Your task to perform on an android device: turn off priority inbox in the gmail app Image 0: 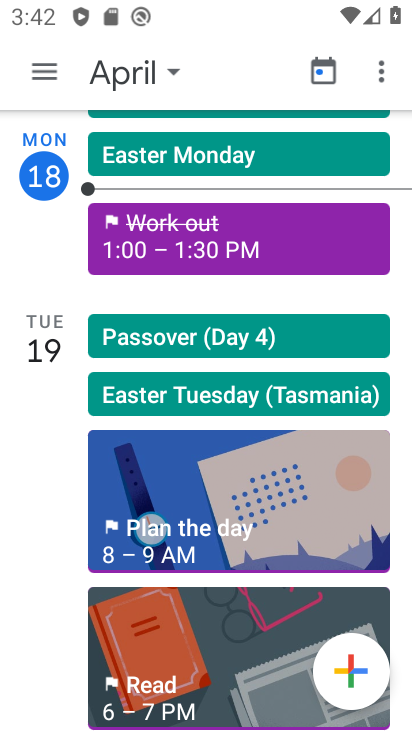
Step 0: press home button
Your task to perform on an android device: turn off priority inbox in the gmail app Image 1: 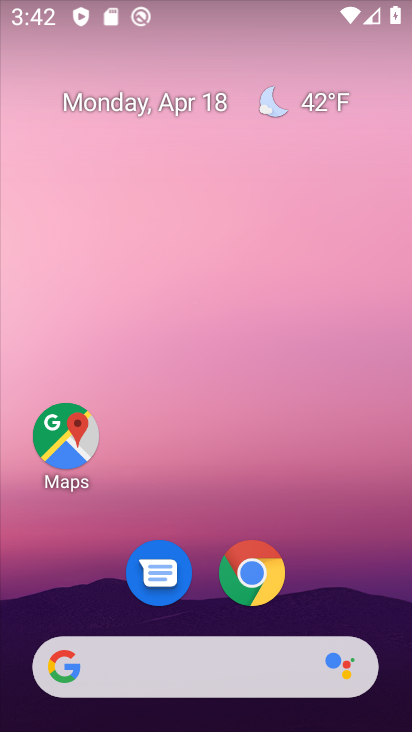
Step 1: drag from (209, 632) to (221, 302)
Your task to perform on an android device: turn off priority inbox in the gmail app Image 2: 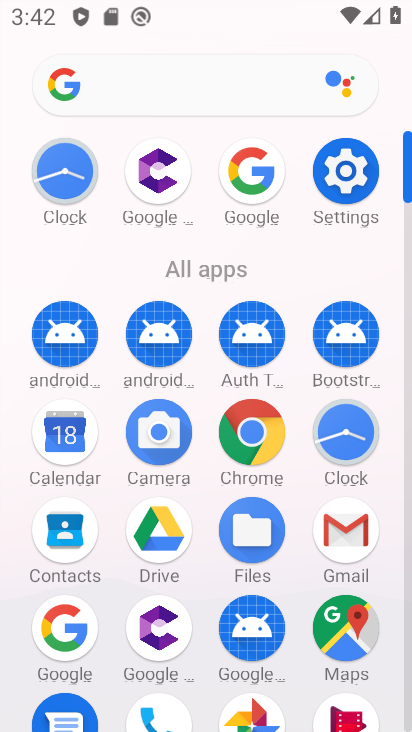
Step 2: click (352, 541)
Your task to perform on an android device: turn off priority inbox in the gmail app Image 3: 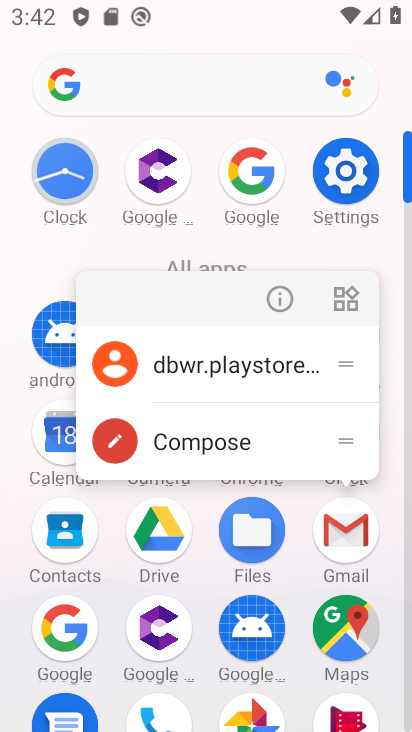
Step 3: click (343, 528)
Your task to perform on an android device: turn off priority inbox in the gmail app Image 4: 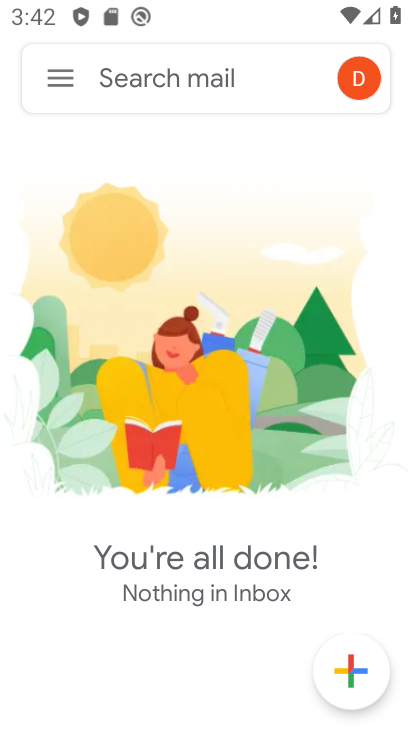
Step 4: click (58, 71)
Your task to perform on an android device: turn off priority inbox in the gmail app Image 5: 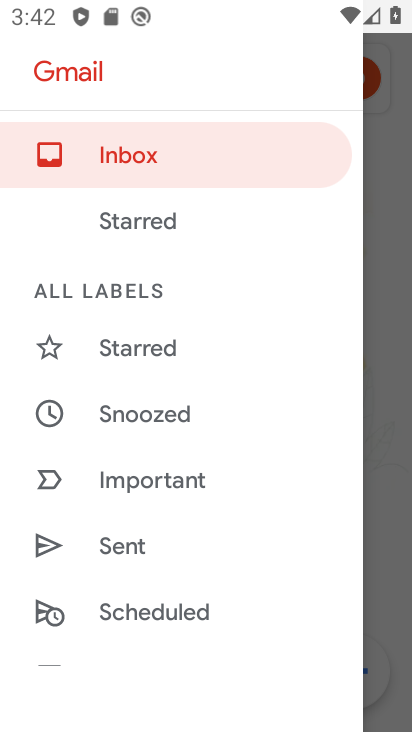
Step 5: drag from (170, 576) to (176, 298)
Your task to perform on an android device: turn off priority inbox in the gmail app Image 6: 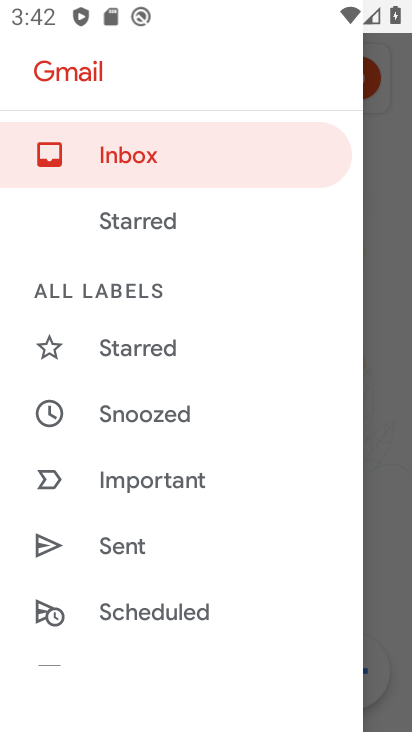
Step 6: drag from (181, 639) to (171, 319)
Your task to perform on an android device: turn off priority inbox in the gmail app Image 7: 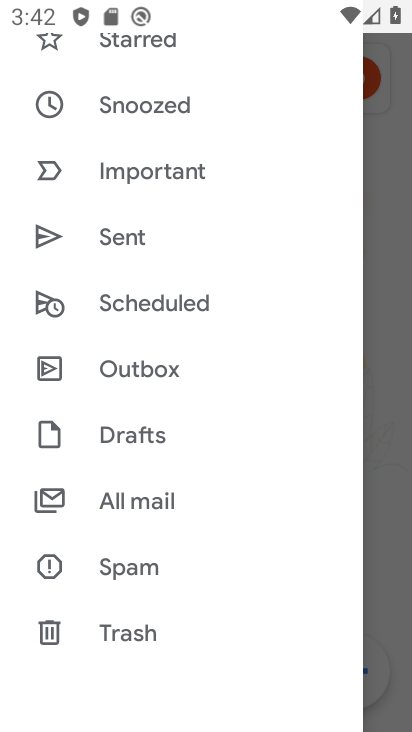
Step 7: drag from (205, 633) to (245, 269)
Your task to perform on an android device: turn off priority inbox in the gmail app Image 8: 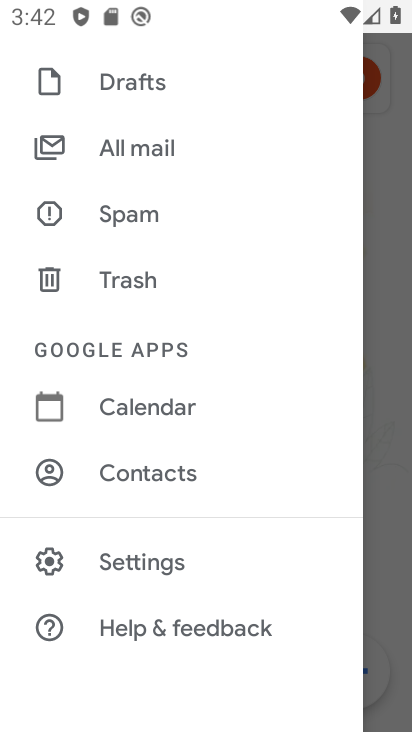
Step 8: click (151, 559)
Your task to perform on an android device: turn off priority inbox in the gmail app Image 9: 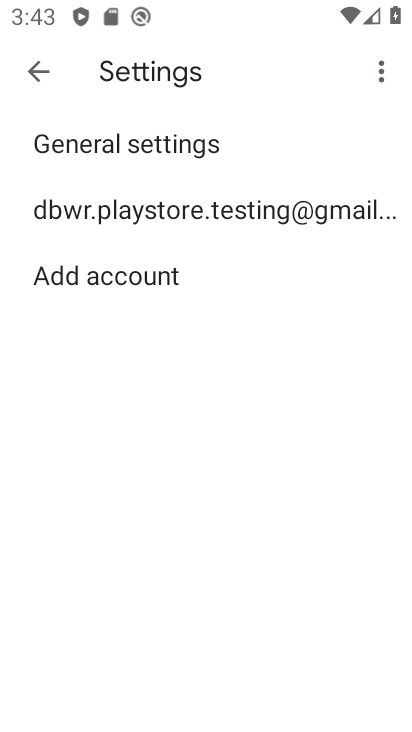
Step 9: click (74, 211)
Your task to perform on an android device: turn off priority inbox in the gmail app Image 10: 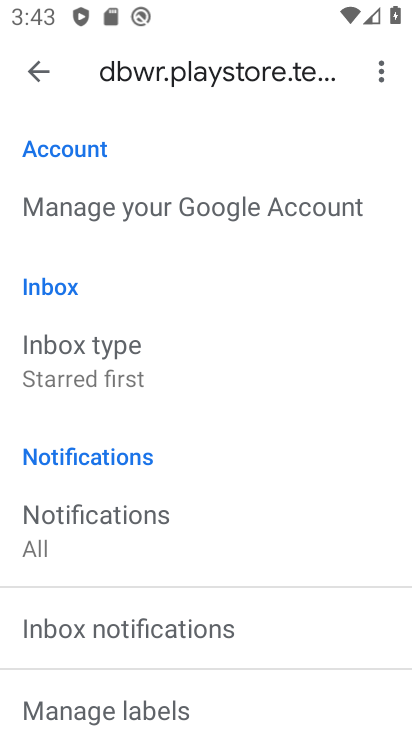
Step 10: click (71, 355)
Your task to perform on an android device: turn off priority inbox in the gmail app Image 11: 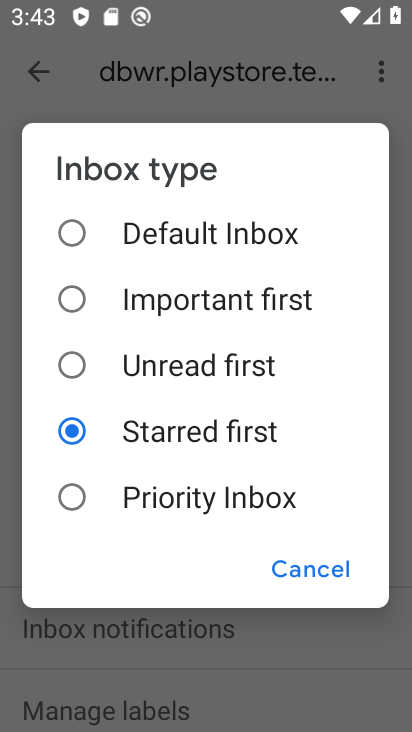
Step 11: task complete